Your task to perform on an android device: change text size in settings app Image 0: 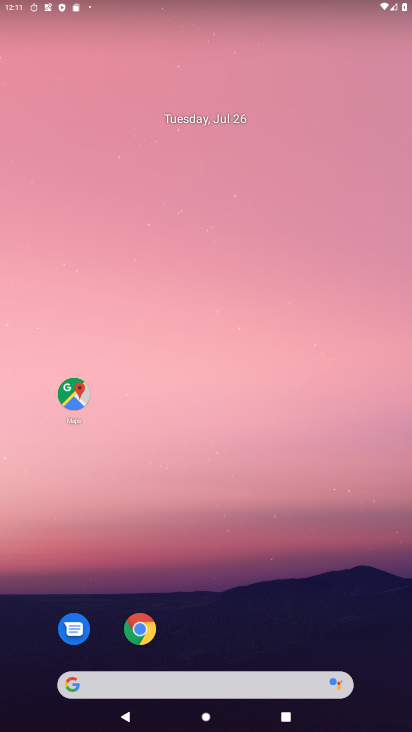
Step 0: drag from (262, 439) to (228, 149)
Your task to perform on an android device: change text size in settings app Image 1: 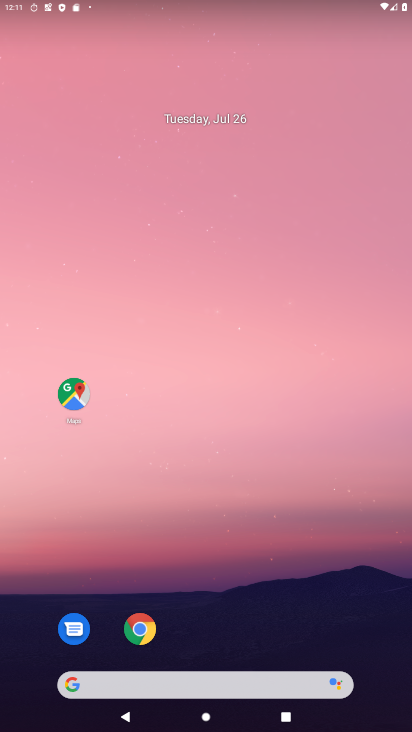
Step 1: click (227, 248)
Your task to perform on an android device: change text size in settings app Image 2: 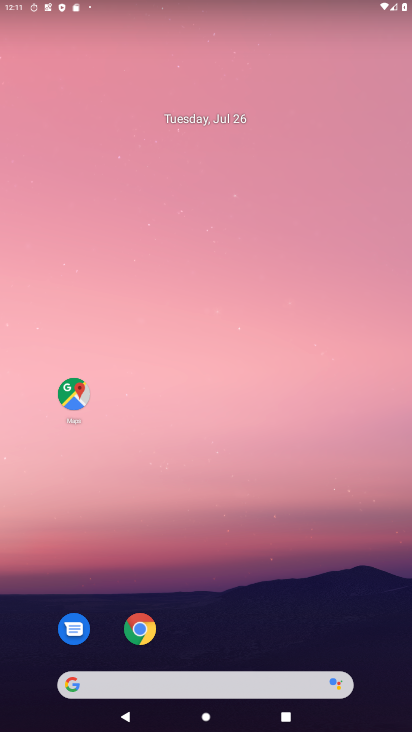
Step 2: click (169, 113)
Your task to perform on an android device: change text size in settings app Image 3: 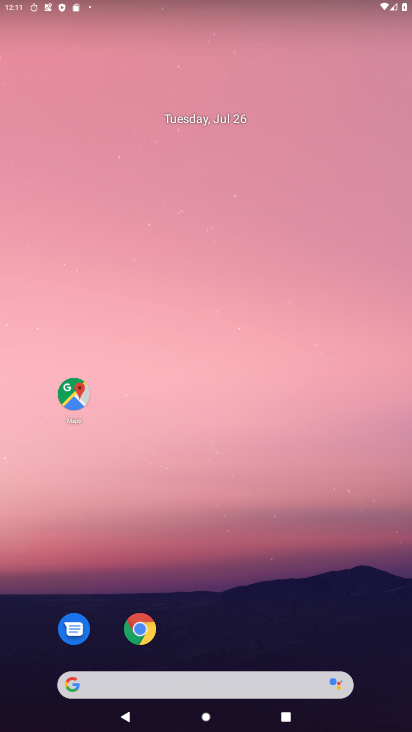
Step 3: drag from (232, 624) to (238, 189)
Your task to perform on an android device: change text size in settings app Image 4: 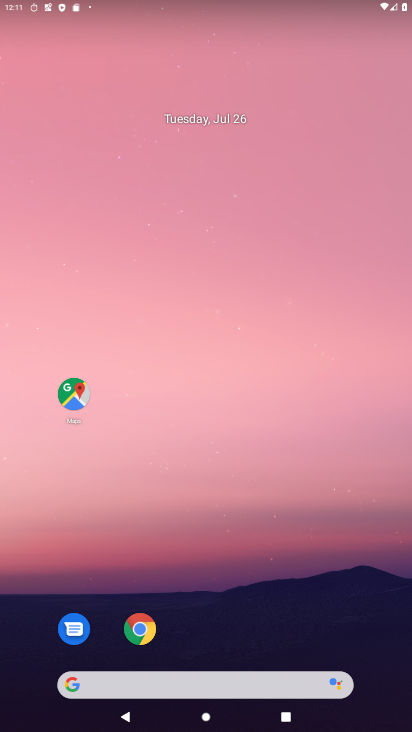
Step 4: drag from (275, 615) to (261, 105)
Your task to perform on an android device: change text size in settings app Image 5: 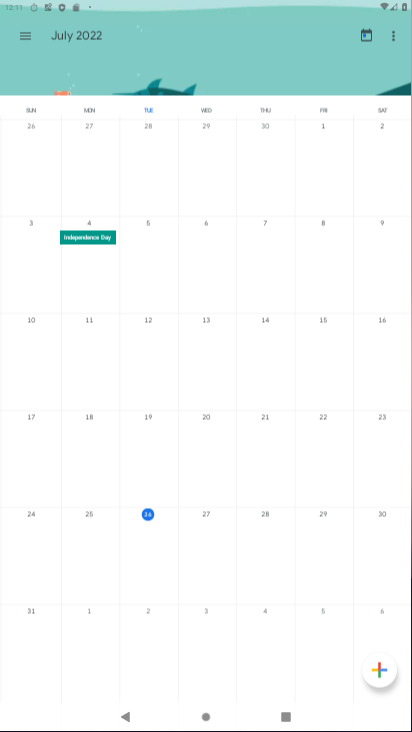
Step 5: drag from (238, 480) to (218, 168)
Your task to perform on an android device: change text size in settings app Image 6: 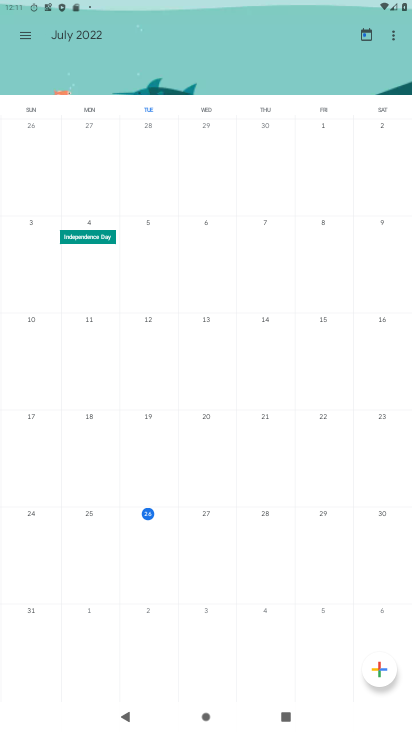
Step 6: press back button
Your task to perform on an android device: change text size in settings app Image 7: 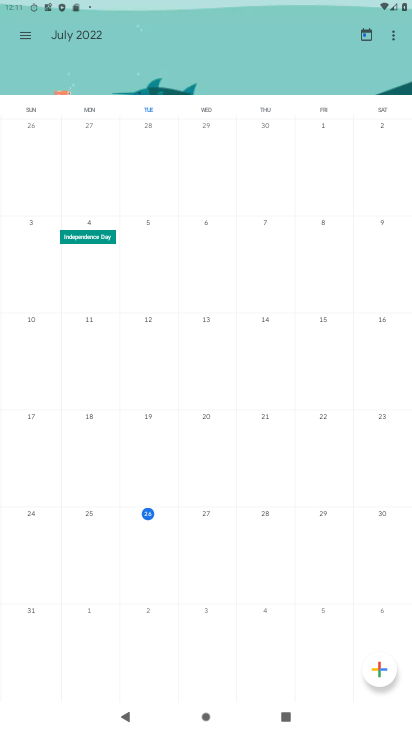
Step 7: press back button
Your task to perform on an android device: change text size in settings app Image 8: 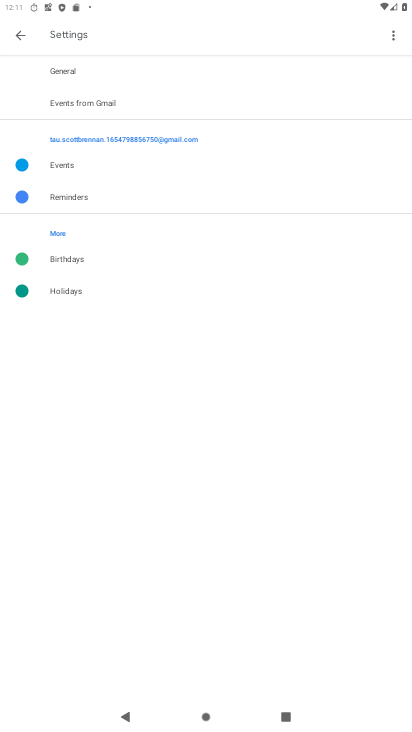
Step 8: press back button
Your task to perform on an android device: change text size in settings app Image 9: 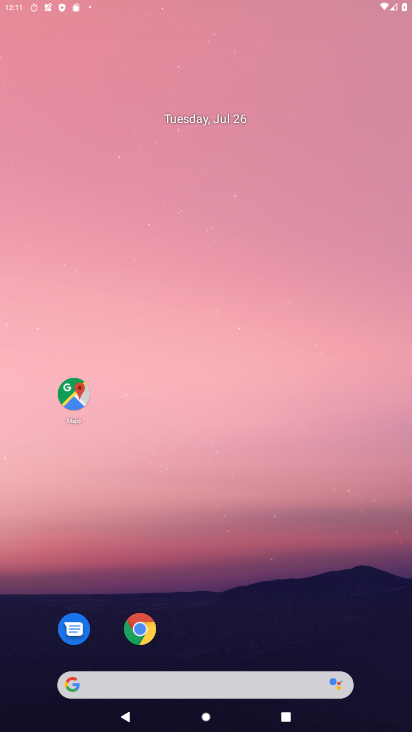
Step 9: press back button
Your task to perform on an android device: change text size in settings app Image 10: 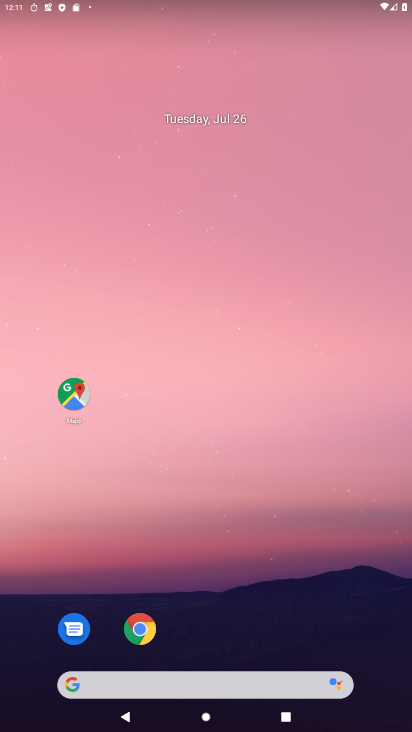
Step 10: drag from (235, 452) to (229, 134)
Your task to perform on an android device: change text size in settings app Image 11: 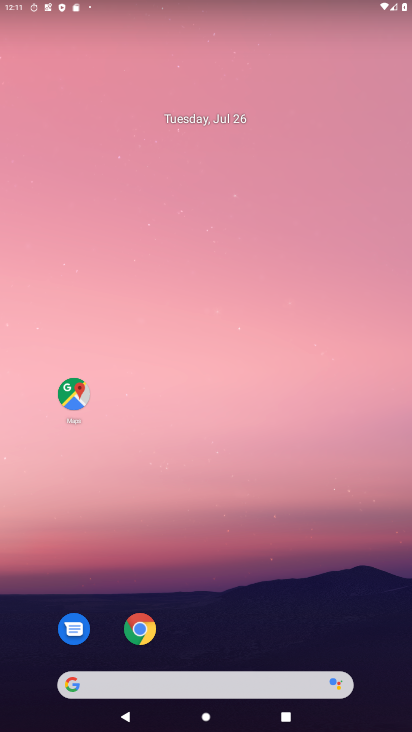
Step 11: drag from (248, 550) to (185, 187)
Your task to perform on an android device: change text size in settings app Image 12: 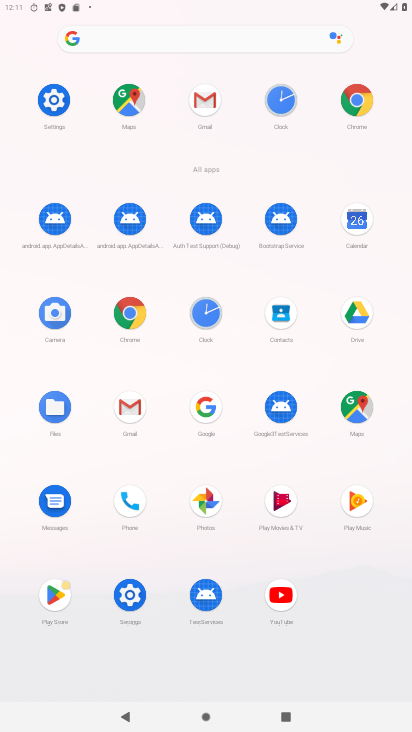
Step 12: click (129, 585)
Your task to perform on an android device: change text size in settings app Image 13: 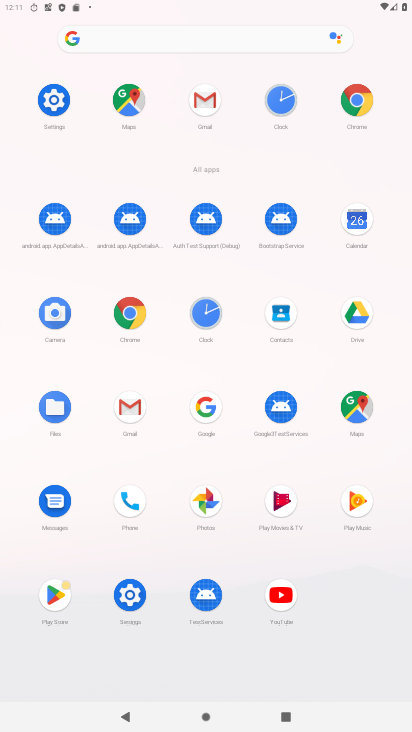
Step 13: click (130, 591)
Your task to perform on an android device: change text size in settings app Image 14: 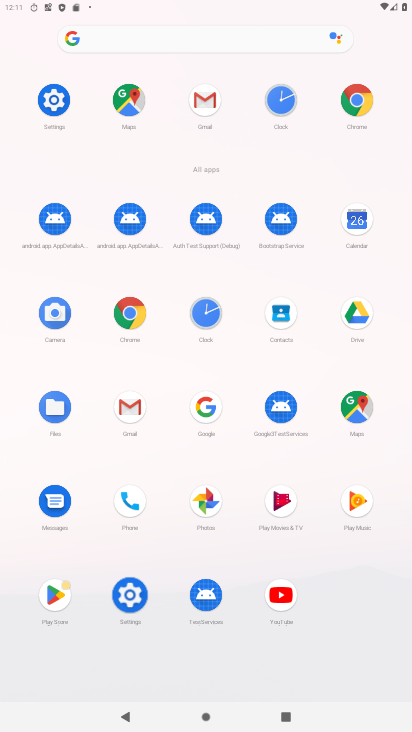
Step 14: click (129, 590)
Your task to perform on an android device: change text size in settings app Image 15: 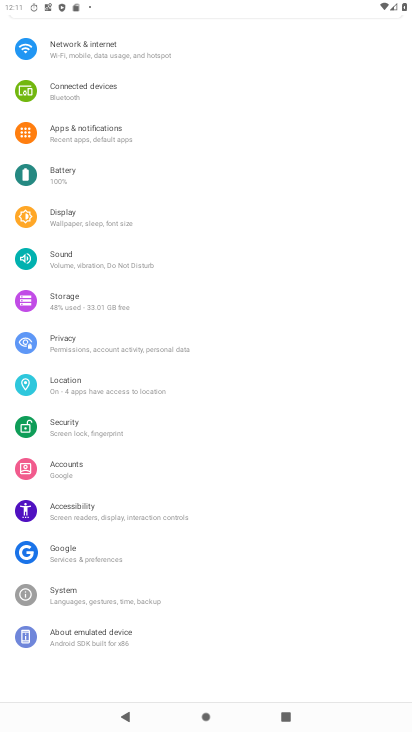
Step 15: click (132, 591)
Your task to perform on an android device: change text size in settings app Image 16: 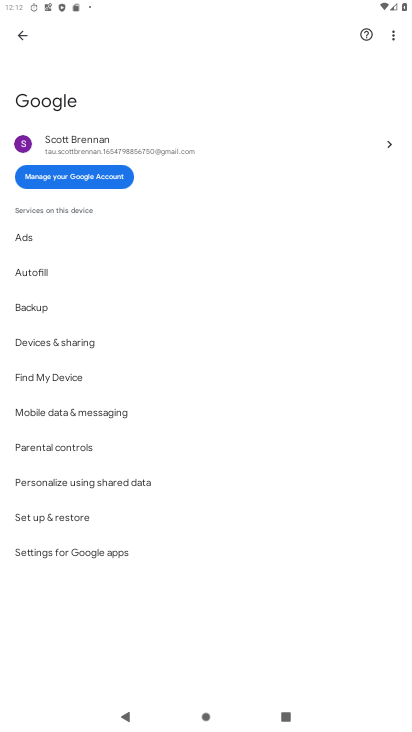
Step 16: click (14, 36)
Your task to perform on an android device: change text size in settings app Image 17: 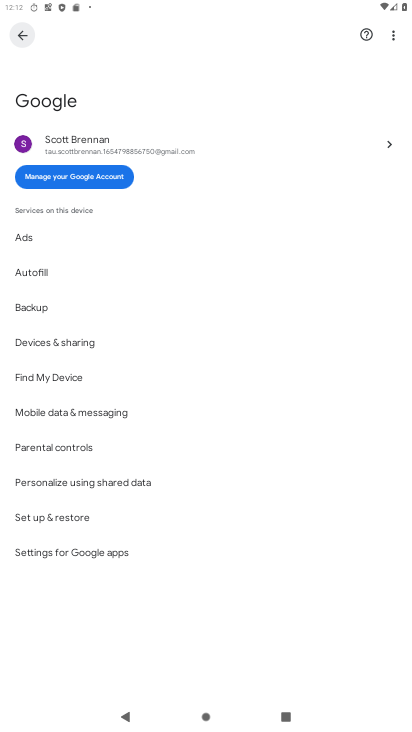
Step 17: click (16, 36)
Your task to perform on an android device: change text size in settings app Image 18: 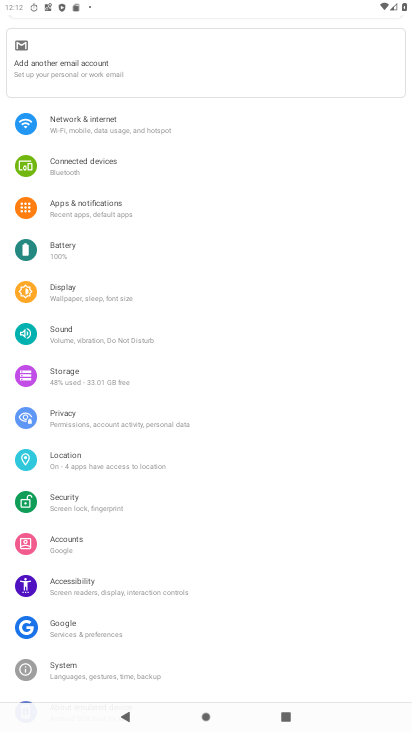
Step 18: click (61, 294)
Your task to perform on an android device: change text size in settings app Image 19: 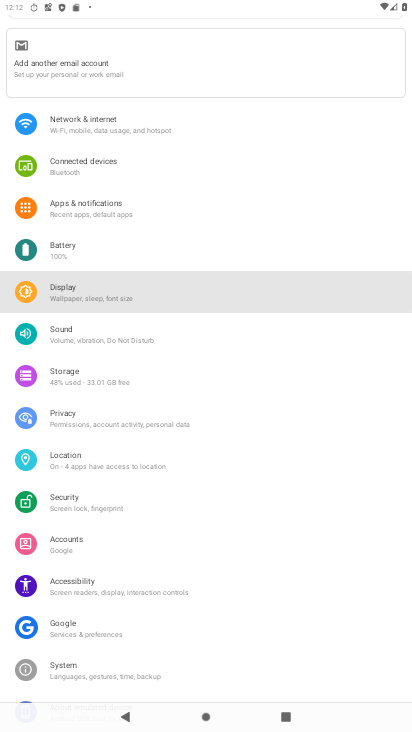
Step 19: click (62, 293)
Your task to perform on an android device: change text size in settings app Image 20: 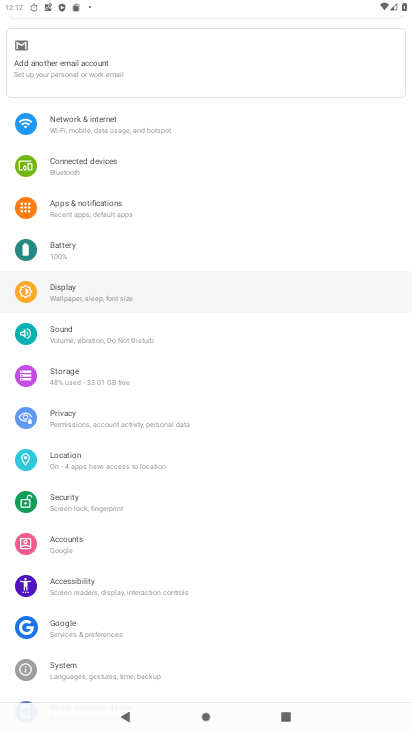
Step 20: click (64, 293)
Your task to perform on an android device: change text size in settings app Image 21: 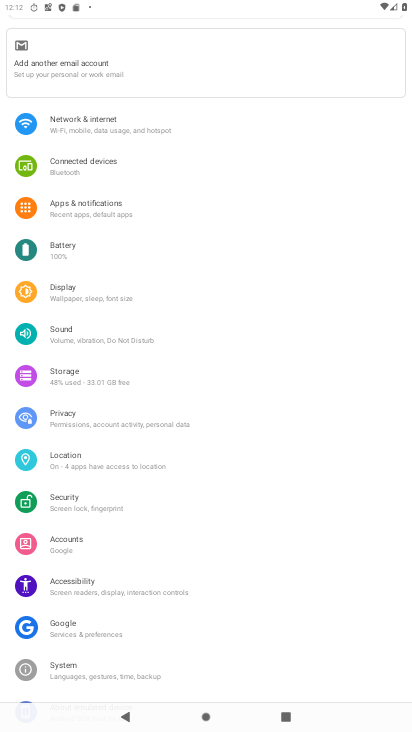
Step 21: click (65, 293)
Your task to perform on an android device: change text size in settings app Image 22: 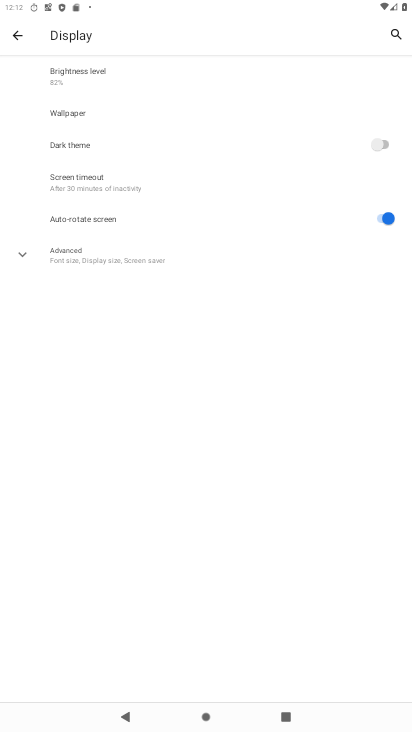
Step 22: click (70, 251)
Your task to perform on an android device: change text size in settings app Image 23: 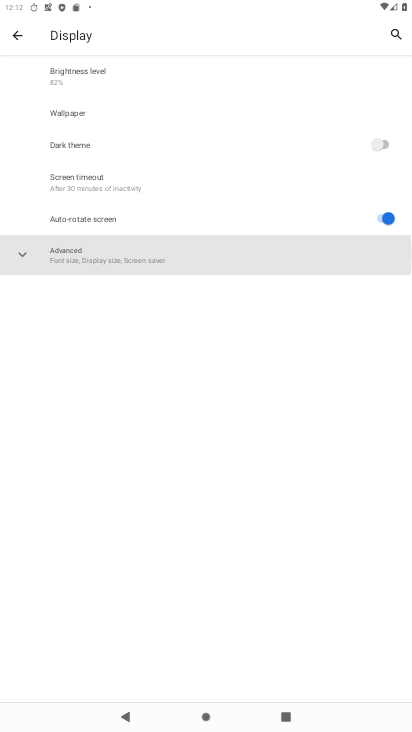
Step 23: click (72, 251)
Your task to perform on an android device: change text size in settings app Image 24: 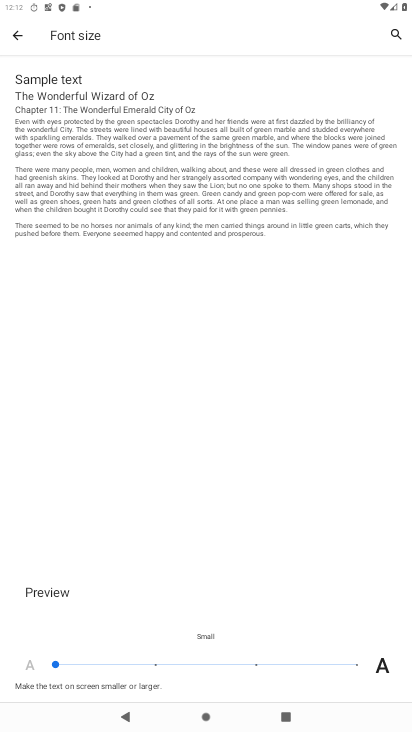
Step 24: click (353, 662)
Your task to perform on an android device: change text size in settings app Image 25: 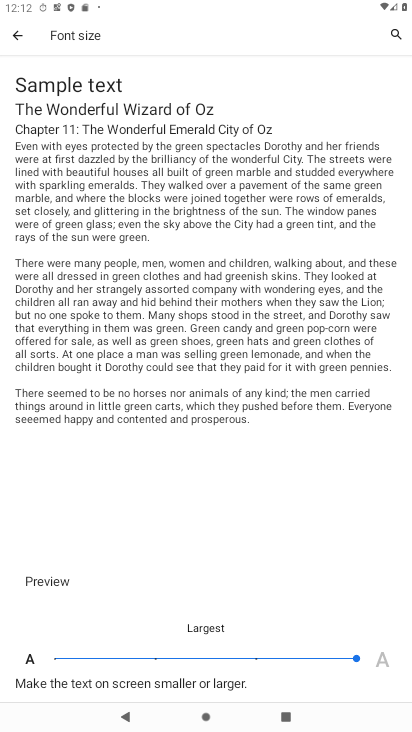
Step 25: task complete